Your task to perform on an android device: turn off picture-in-picture Image 0: 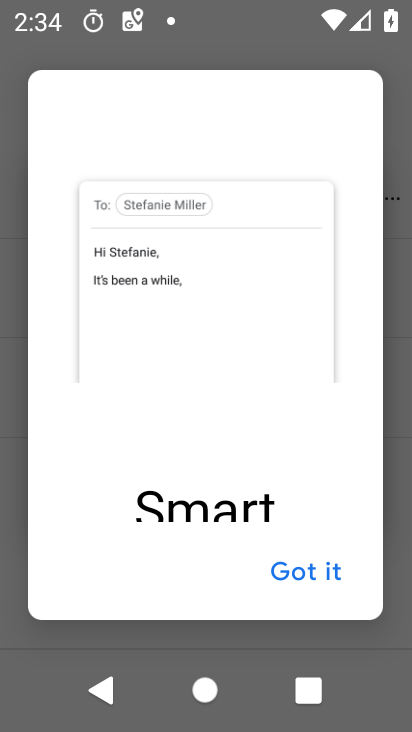
Step 0: click (321, 574)
Your task to perform on an android device: turn off picture-in-picture Image 1: 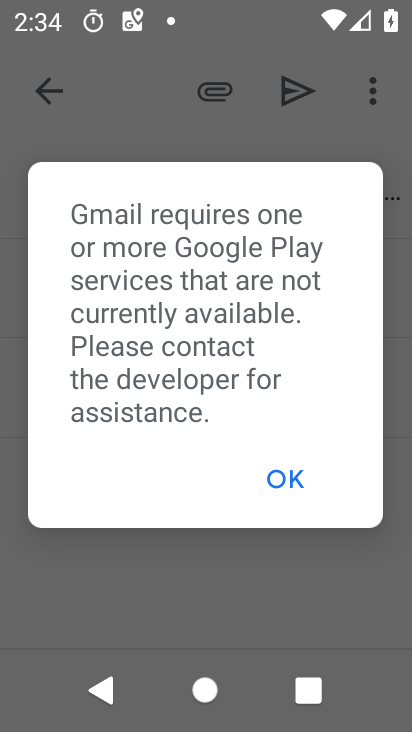
Step 1: press home button
Your task to perform on an android device: turn off picture-in-picture Image 2: 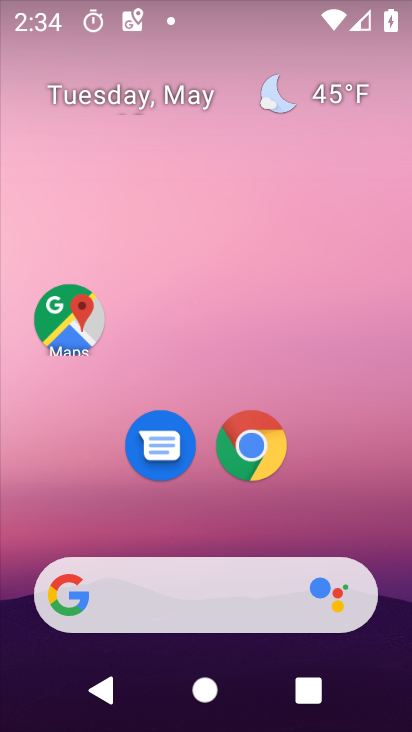
Step 2: drag from (193, 563) to (304, 53)
Your task to perform on an android device: turn off picture-in-picture Image 3: 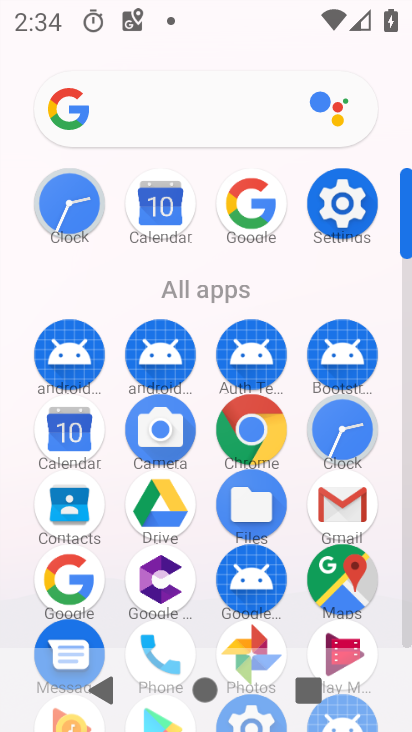
Step 3: click (328, 215)
Your task to perform on an android device: turn off picture-in-picture Image 4: 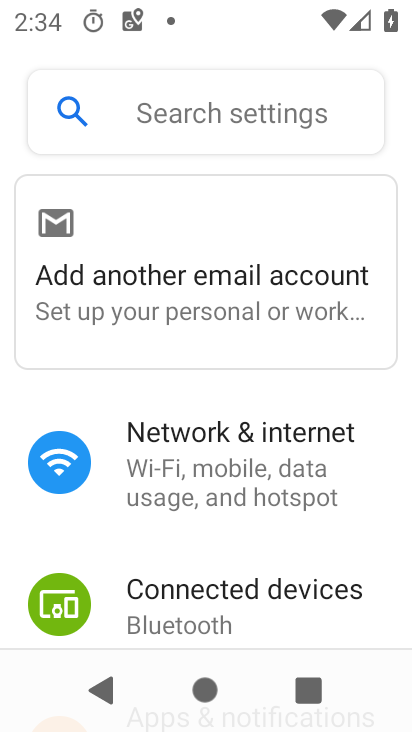
Step 4: drag from (228, 579) to (320, 132)
Your task to perform on an android device: turn off picture-in-picture Image 5: 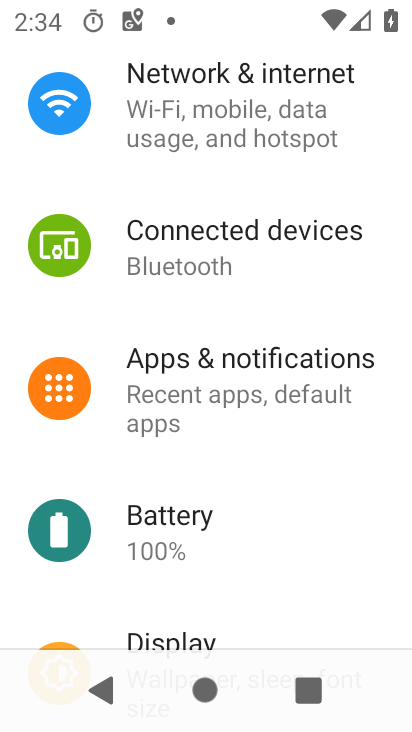
Step 5: drag from (232, 631) to (283, 464)
Your task to perform on an android device: turn off picture-in-picture Image 6: 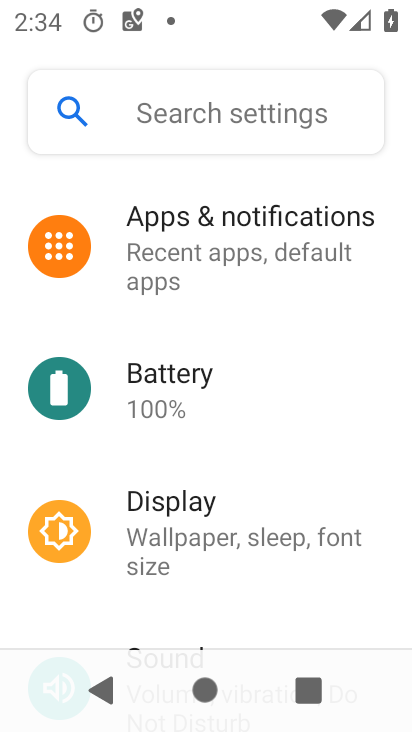
Step 6: click (210, 277)
Your task to perform on an android device: turn off picture-in-picture Image 7: 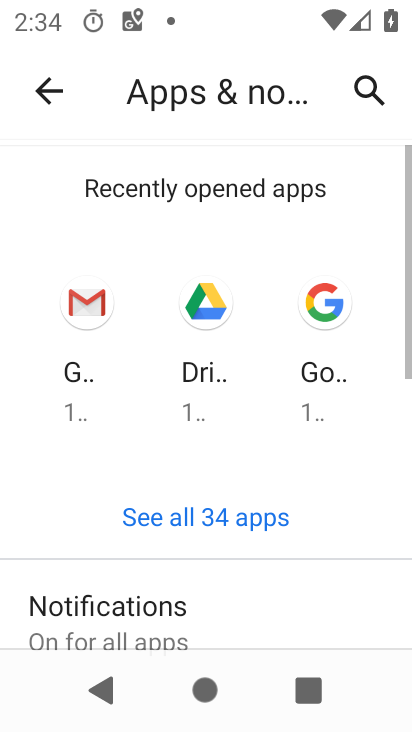
Step 7: drag from (189, 603) to (354, 12)
Your task to perform on an android device: turn off picture-in-picture Image 8: 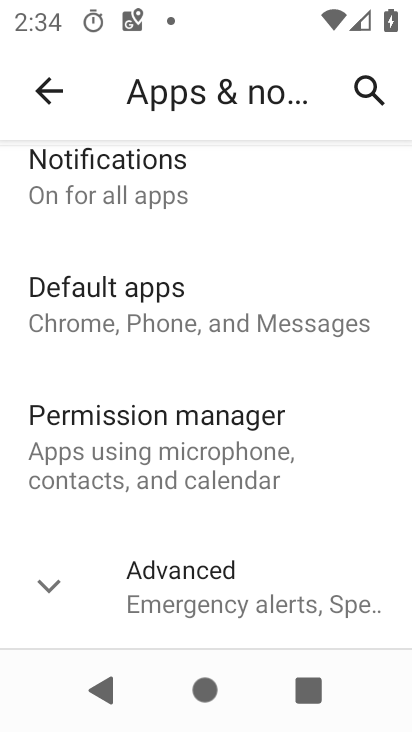
Step 8: drag from (176, 277) to (314, 65)
Your task to perform on an android device: turn off picture-in-picture Image 9: 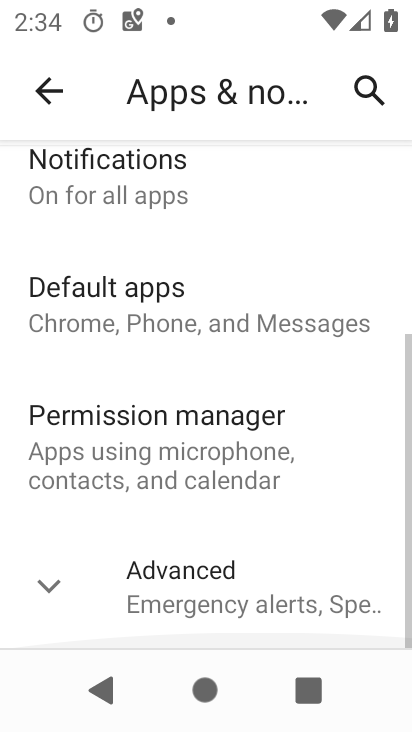
Step 9: click (219, 596)
Your task to perform on an android device: turn off picture-in-picture Image 10: 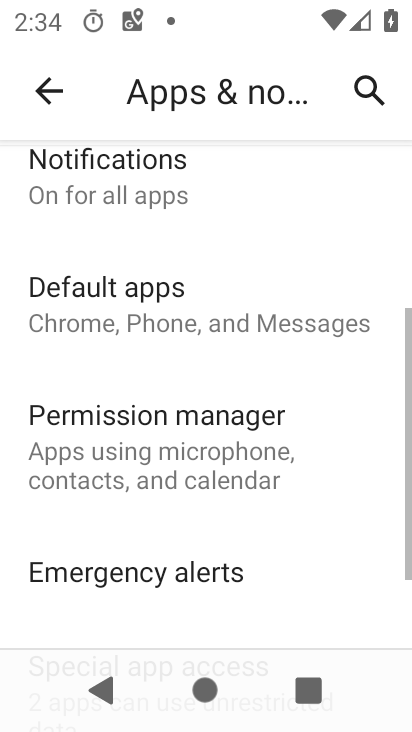
Step 10: drag from (195, 601) to (328, 127)
Your task to perform on an android device: turn off picture-in-picture Image 11: 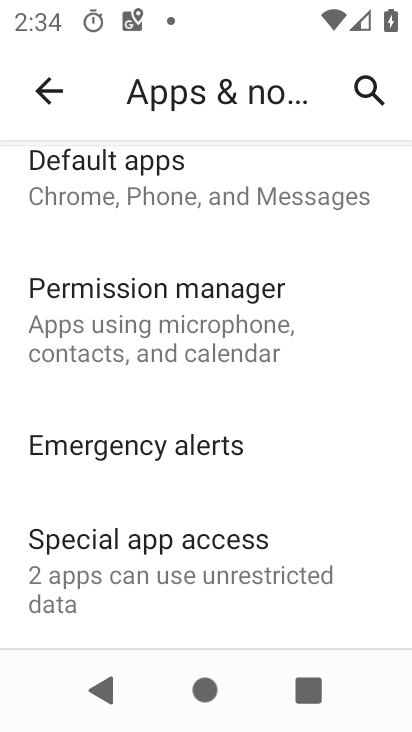
Step 11: click (100, 567)
Your task to perform on an android device: turn off picture-in-picture Image 12: 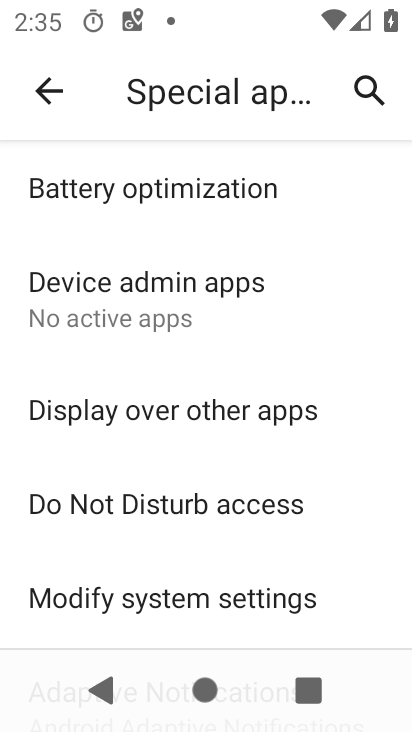
Step 12: drag from (138, 612) to (330, 12)
Your task to perform on an android device: turn off picture-in-picture Image 13: 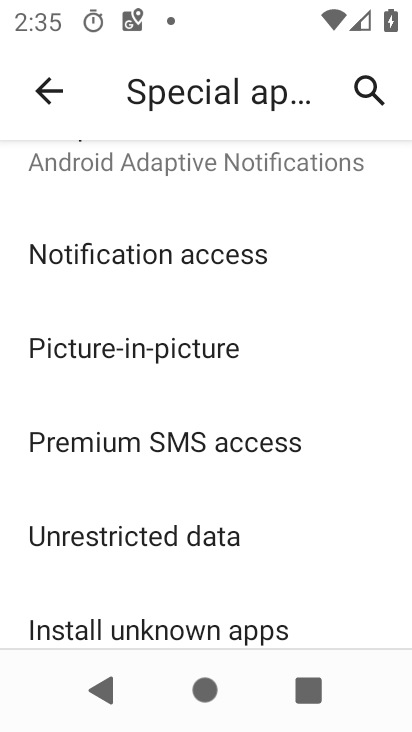
Step 13: drag from (167, 548) to (305, 31)
Your task to perform on an android device: turn off picture-in-picture Image 14: 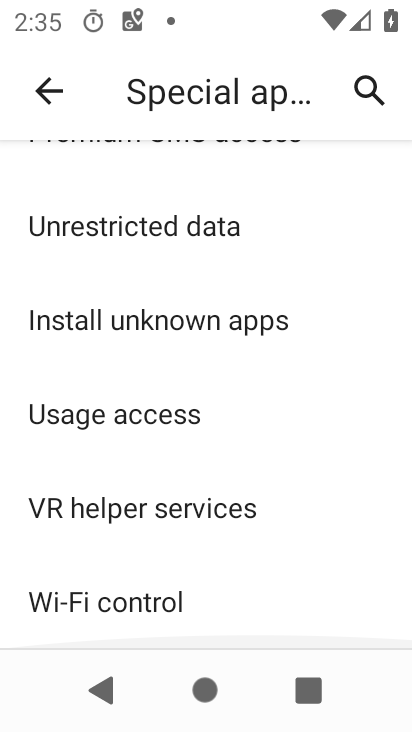
Step 14: drag from (222, 225) to (195, 637)
Your task to perform on an android device: turn off picture-in-picture Image 15: 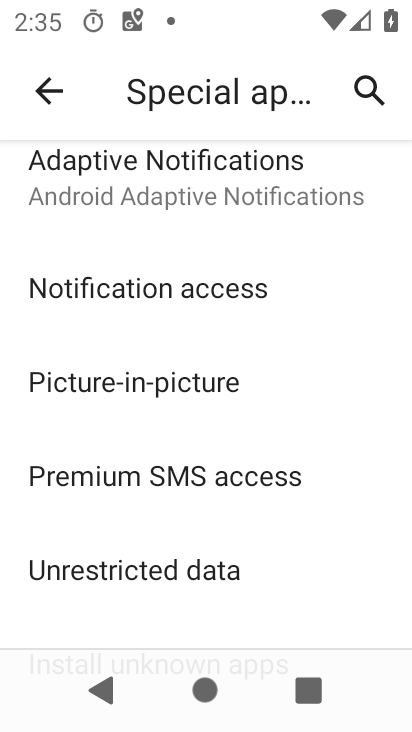
Step 15: click (98, 371)
Your task to perform on an android device: turn off picture-in-picture Image 16: 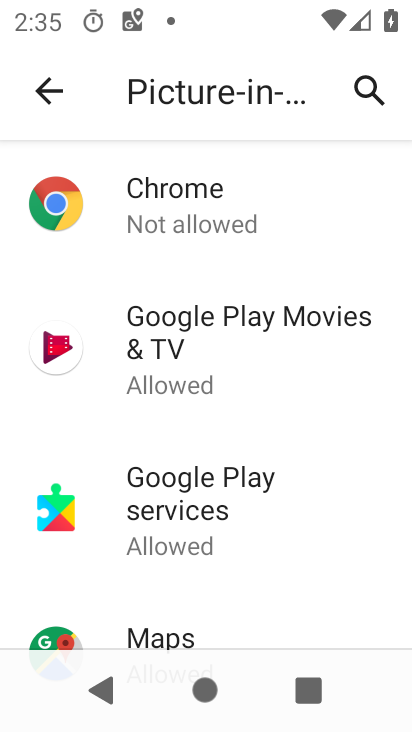
Step 16: click (203, 369)
Your task to perform on an android device: turn off picture-in-picture Image 17: 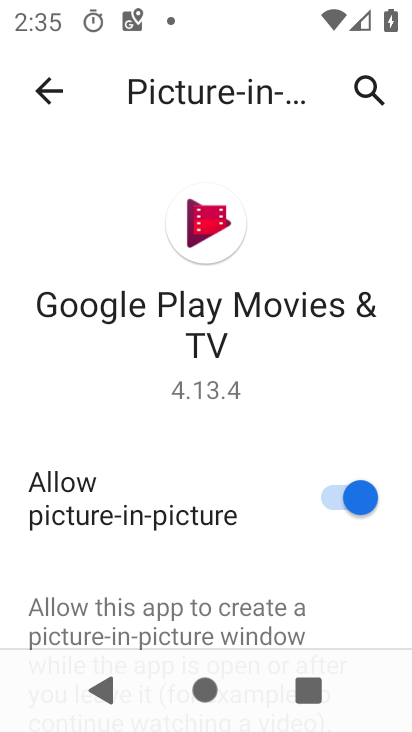
Step 17: click (349, 499)
Your task to perform on an android device: turn off picture-in-picture Image 18: 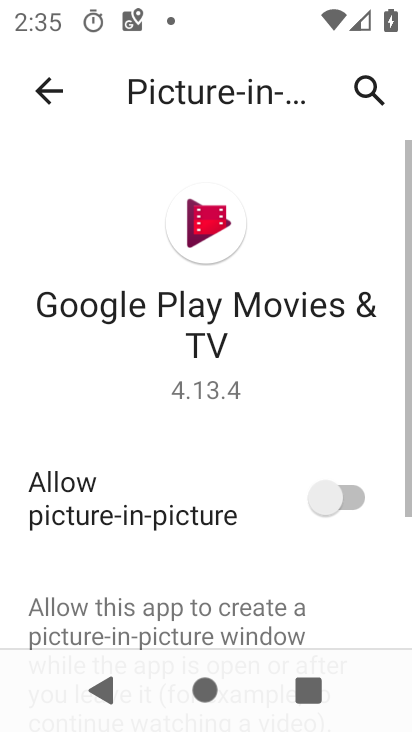
Step 18: task complete